Your task to perform on an android device: open chrome and create a bookmark for the current page Image 0: 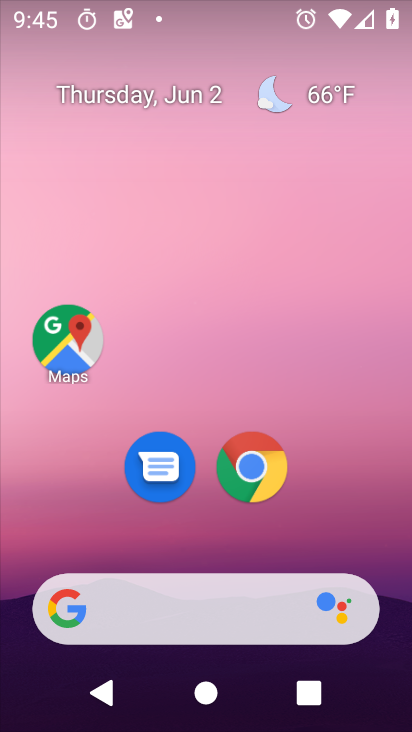
Step 0: press home button
Your task to perform on an android device: open chrome and create a bookmark for the current page Image 1: 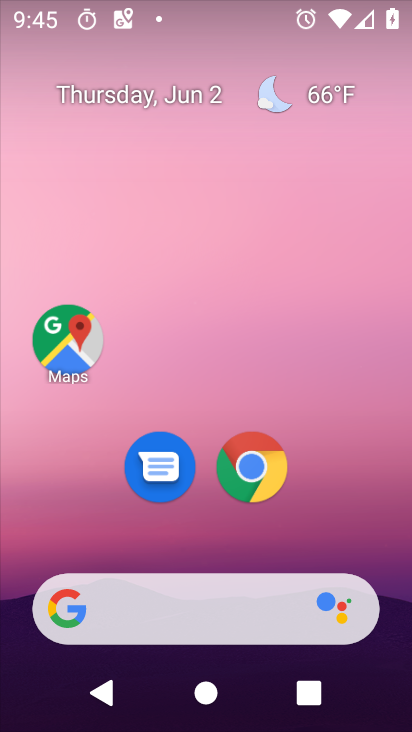
Step 1: click (260, 461)
Your task to perform on an android device: open chrome and create a bookmark for the current page Image 2: 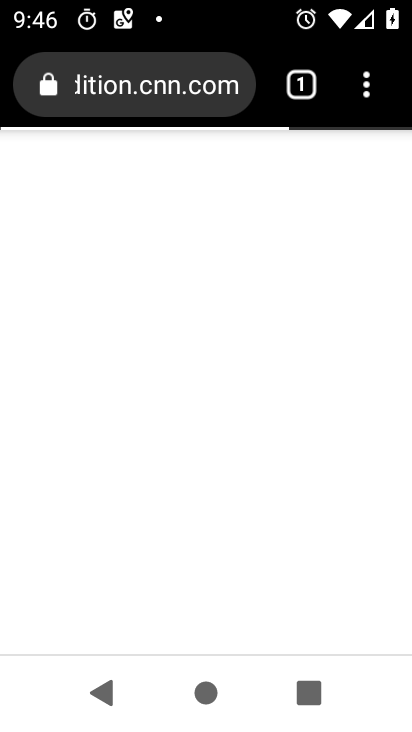
Step 2: click (360, 86)
Your task to perform on an android device: open chrome and create a bookmark for the current page Image 3: 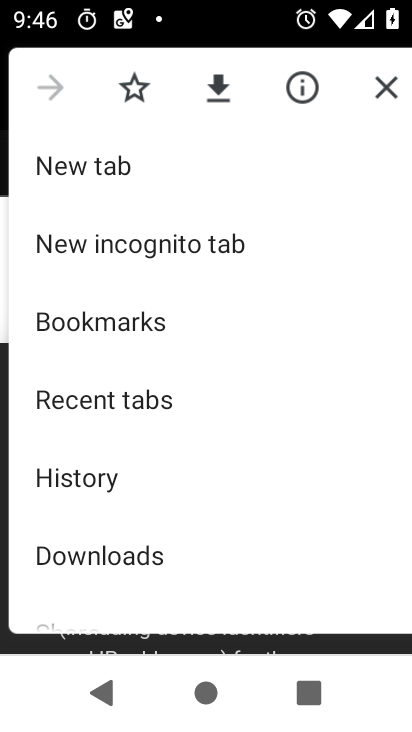
Step 3: click (137, 88)
Your task to perform on an android device: open chrome and create a bookmark for the current page Image 4: 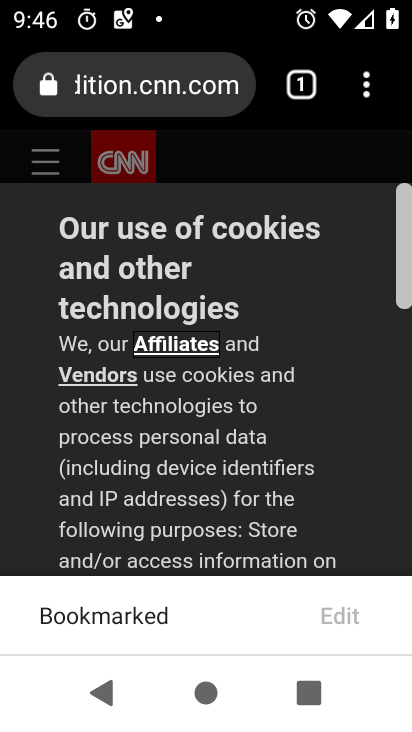
Step 4: task complete